Your task to perform on an android device: Is it going to rain this weekend? Image 0: 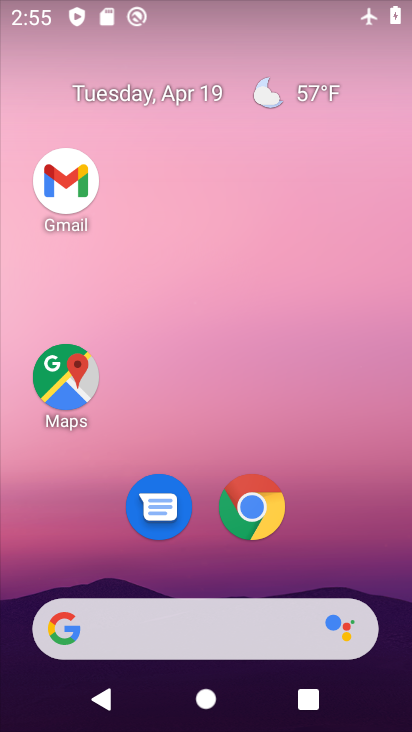
Step 0: drag from (232, 580) to (295, 117)
Your task to perform on an android device: Is it going to rain this weekend? Image 1: 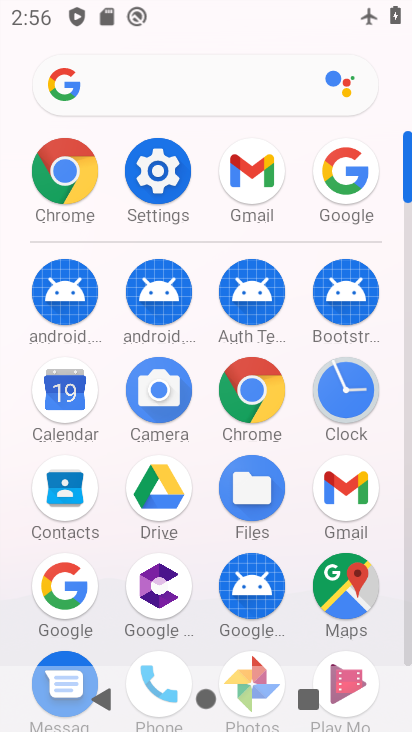
Step 1: drag from (215, 602) to (300, 234)
Your task to perform on an android device: Is it going to rain this weekend? Image 2: 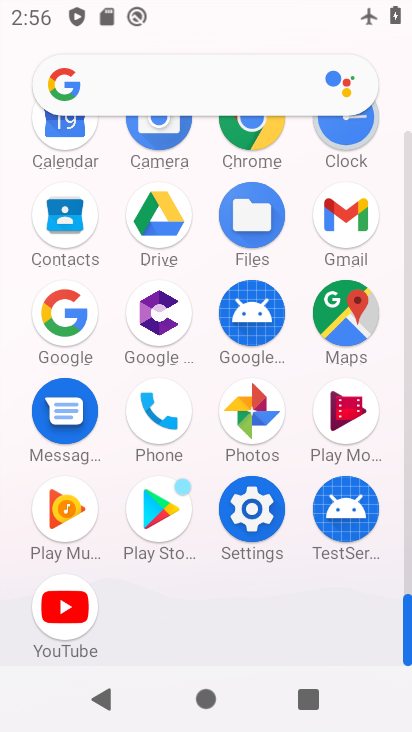
Step 2: click (72, 300)
Your task to perform on an android device: Is it going to rain this weekend? Image 3: 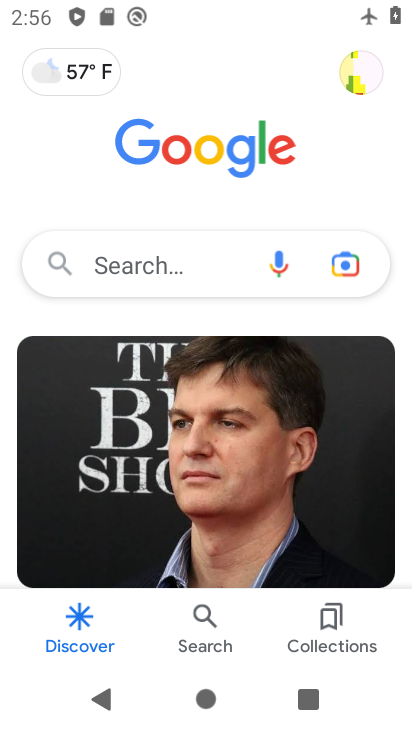
Step 3: click (178, 253)
Your task to perform on an android device: Is it going to rain this weekend? Image 4: 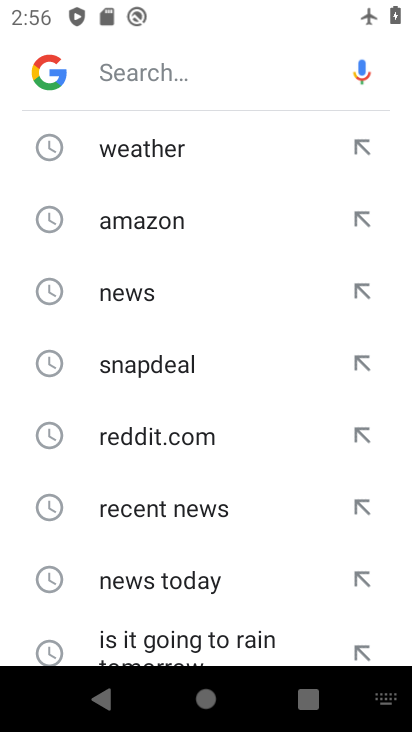
Step 4: click (140, 149)
Your task to perform on an android device: Is it going to rain this weekend? Image 5: 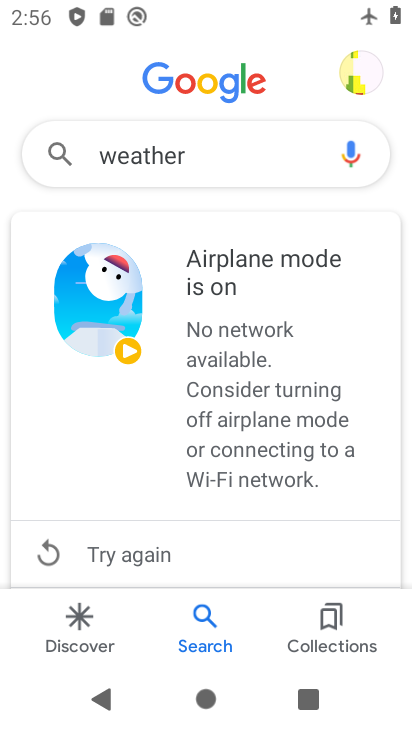
Step 5: task complete